Your task to perform on an android device: Open battery settings Image 0: 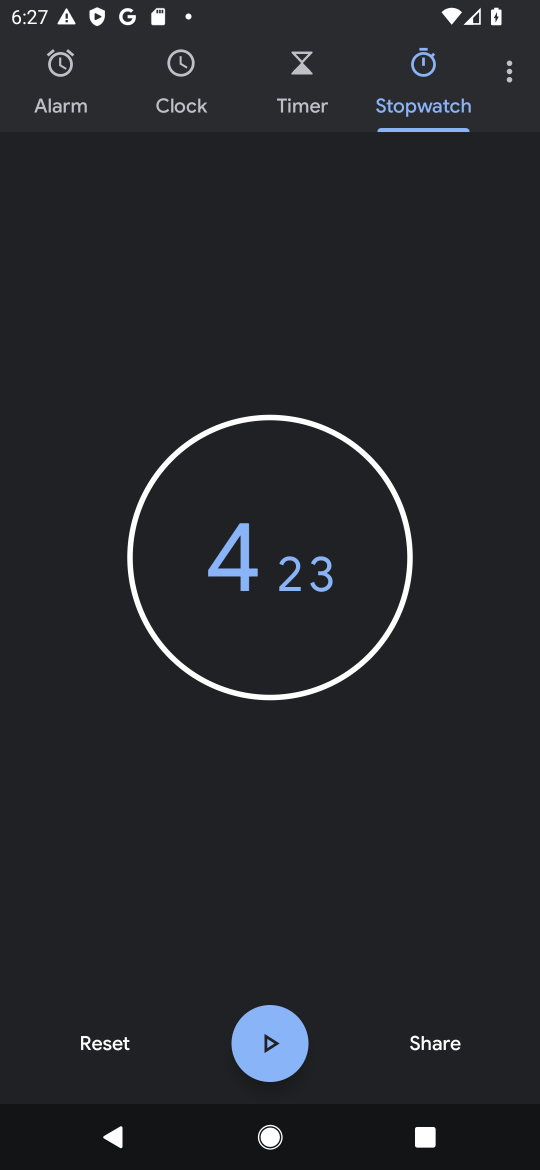
Step 0: press home button
Your task to perform on an android device: Open battery settings Image 1: 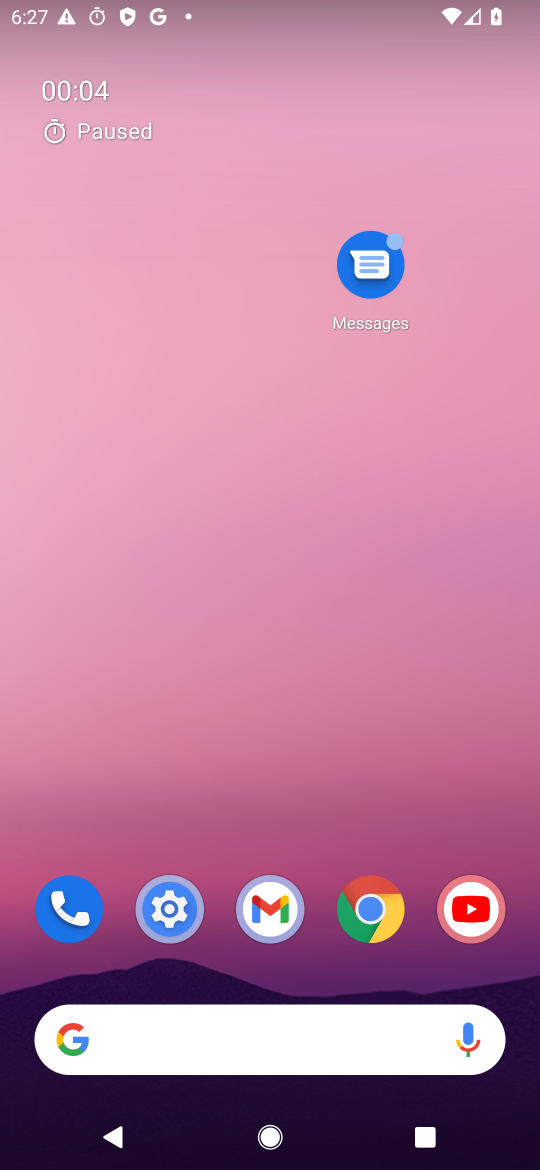
Step 1: click (177, 918)
Your task to perform on an android device: Open battery settings Image 2: 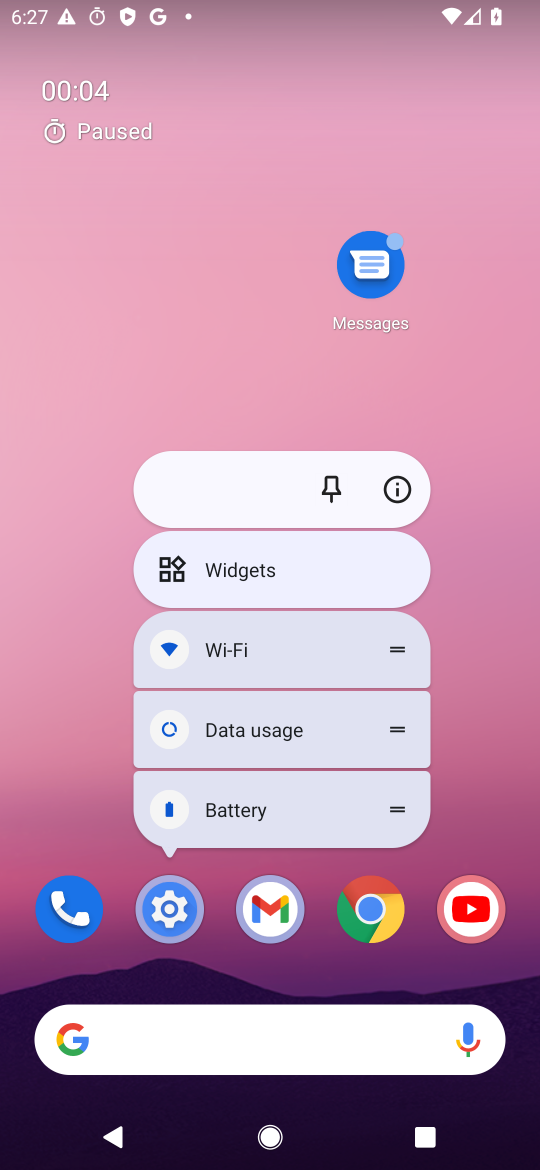
Step 2: click (166, 909)
Your task to perform on an android device: Open battery settings Image 3: 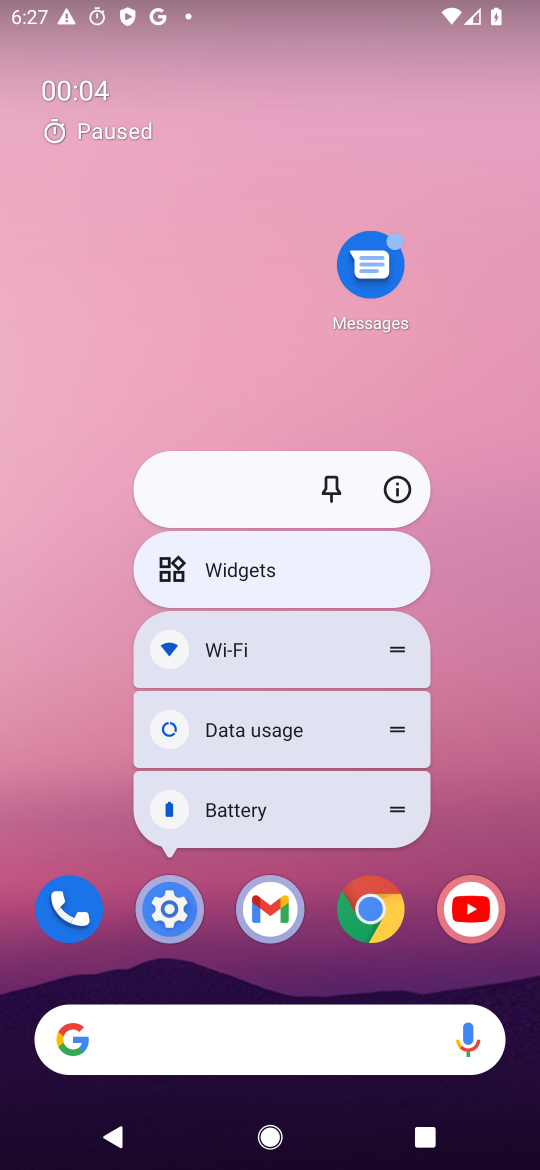
Step 3: click (166, 908)
Your task to perform on an android device: Open battery settings Image 4: 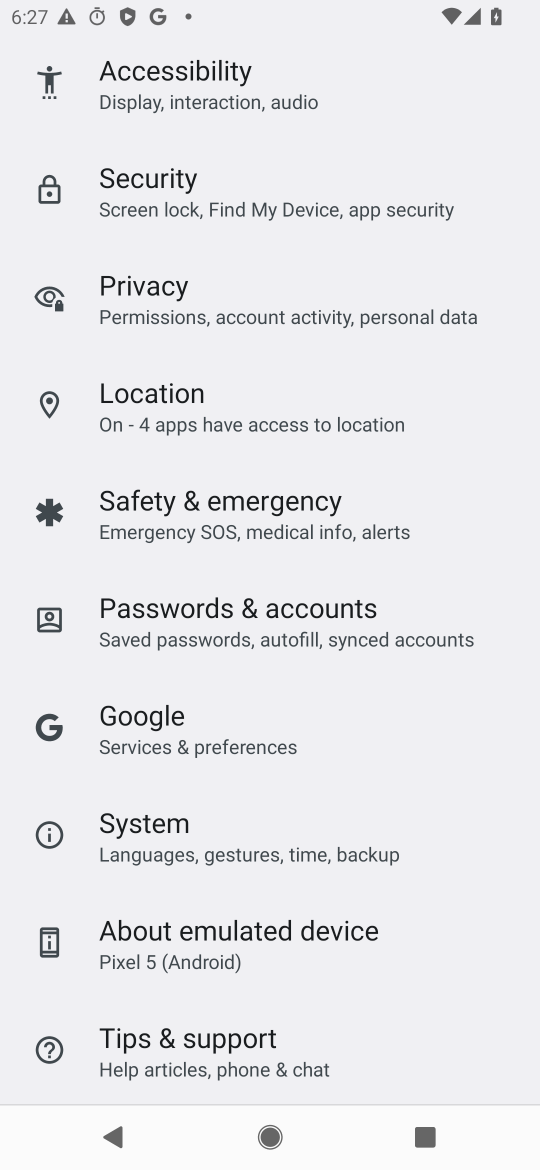
Step 4: drag from (376, 122) to (454, 937)
Your task to perform on an android device: Open battery settings Image 5: 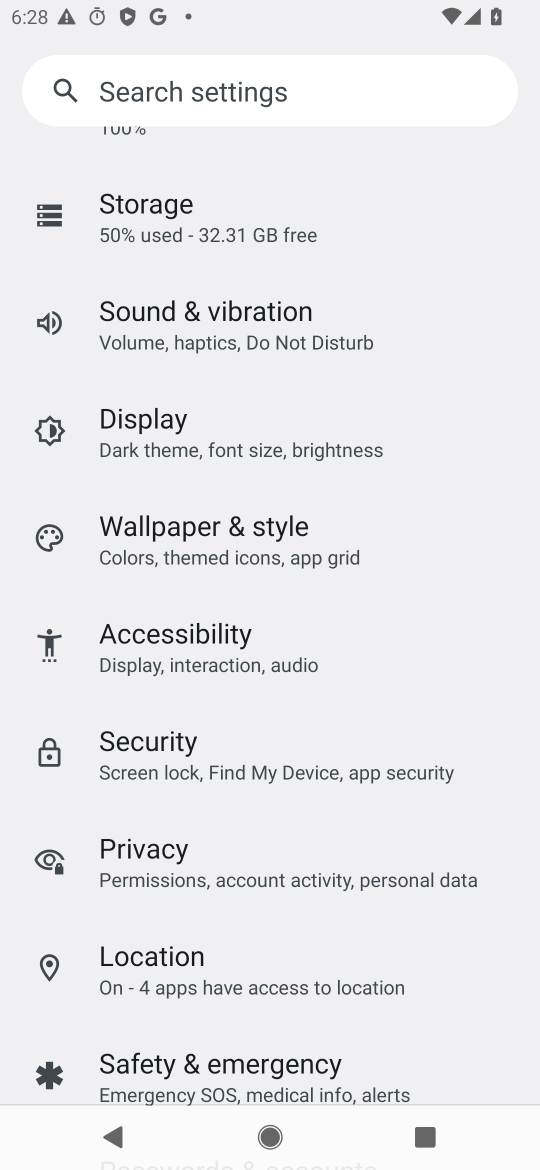
Step 5: drag from (363, 202) to (460, 930)
Your task to perform on an android device: Open battery settings Image 6: 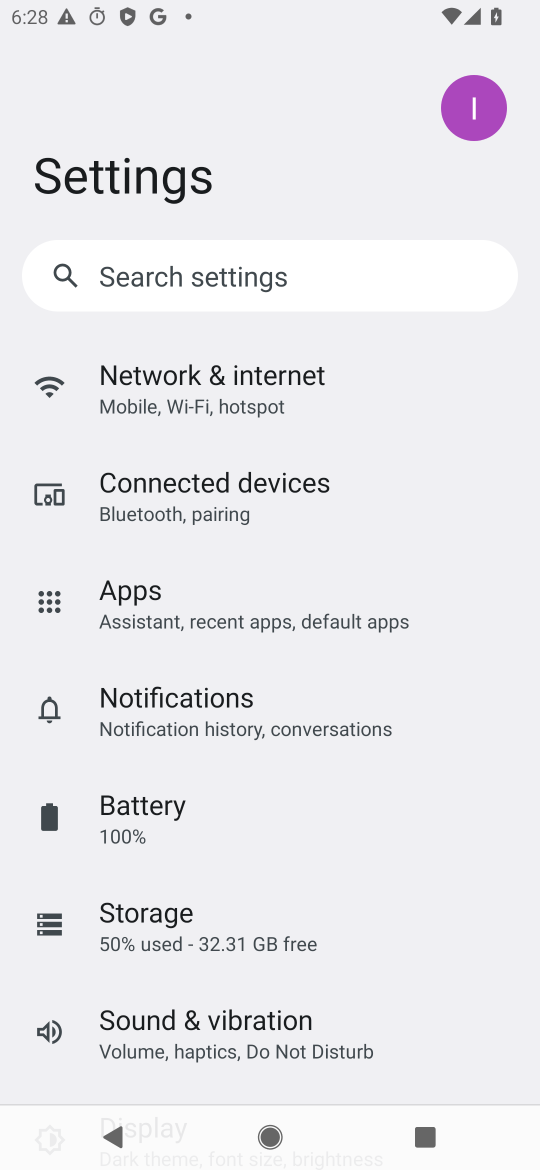
Step 6: click (117, 803)
Your task to perform on an android device: Open battery settings Image 7: 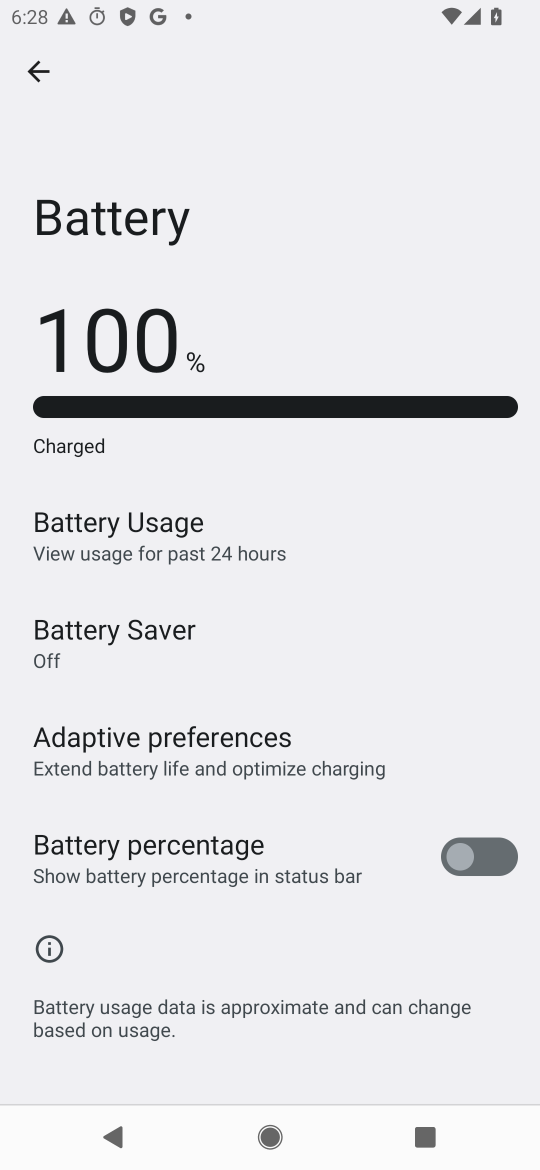
Step 7: task complete